Your task to perform on an android device: Open the calendar and show me this week's events Image 0: 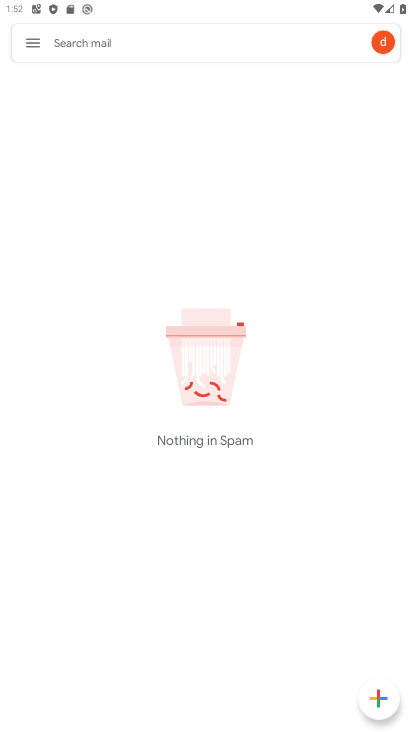
Step 0: press home button
Your task to perform on an android device: Open the calendar and show me this week's events Image 1: 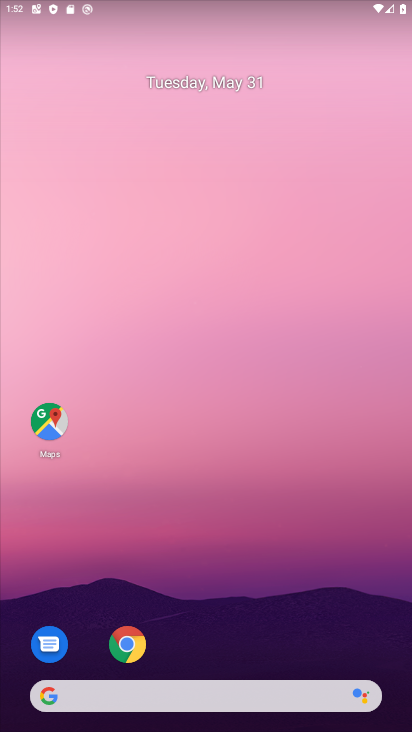
Step 1: click (123, 643)
Your task to perform on an android device: Open the calendar and show me this week's events Image 2: 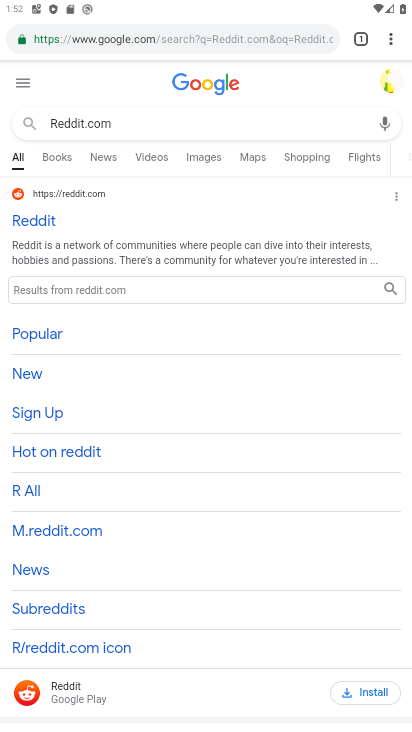
Step 2: press home button
Your task to perform on an android device: Open the calendar and show me this week's events Image 3: 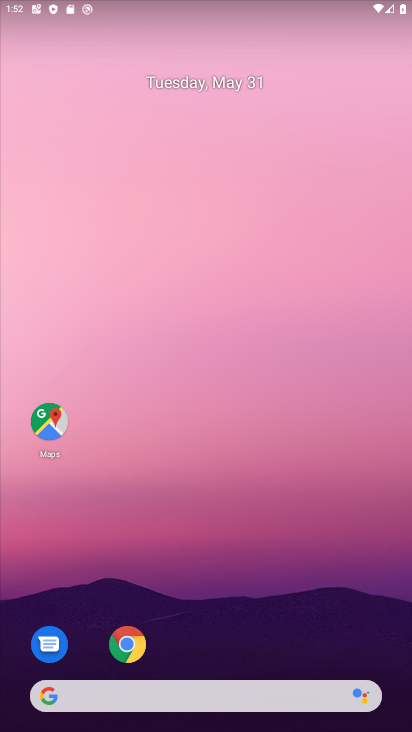
Step 3: drag from (386, 686) to (325, 157)
Your task to perform on an android device: Open the calendar and show me this week's events Image 4: 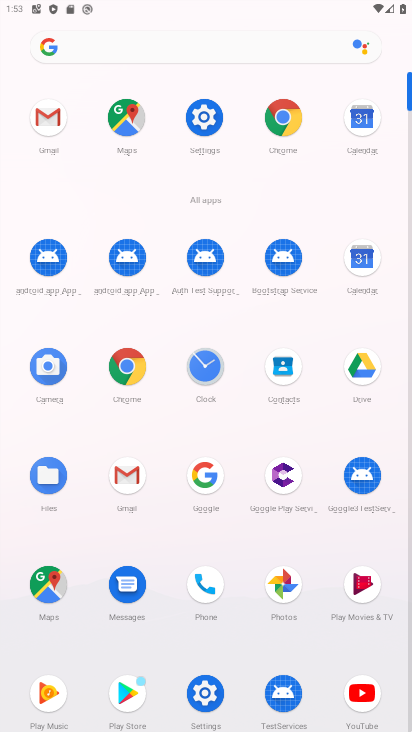
Step 4: click (359, 269)
Your task to perform on an android device: Open the calendar and show me this week's events Image 5: 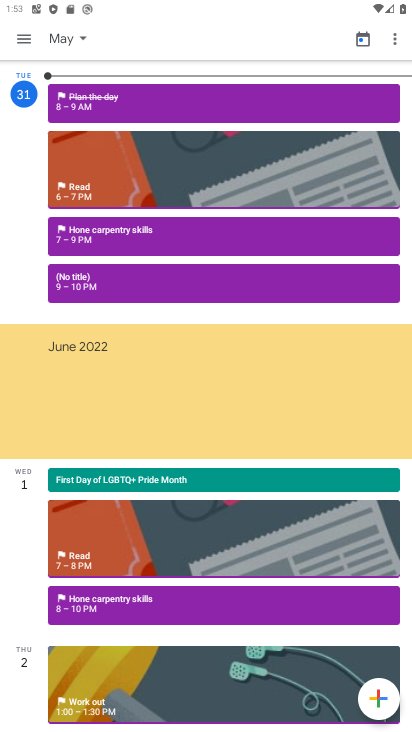
Step 5: click (395, 32)
Your task to perform on an android device: Open the calendar and show me this week's events Image 6: 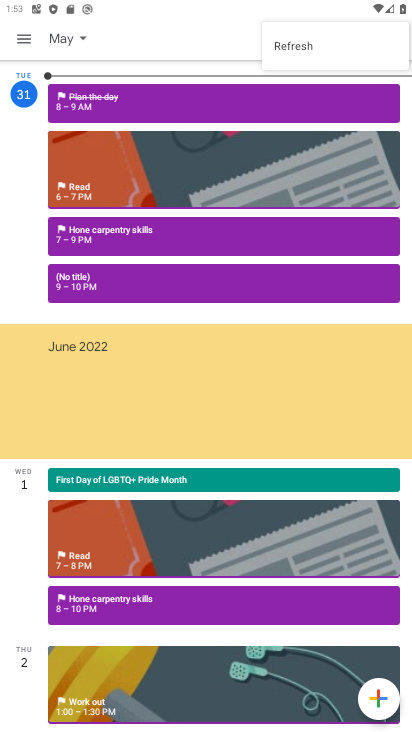
Step 6: click (129, 41)
Your task to perform on an android device: Open the calendar and show me this week's events Image 7: 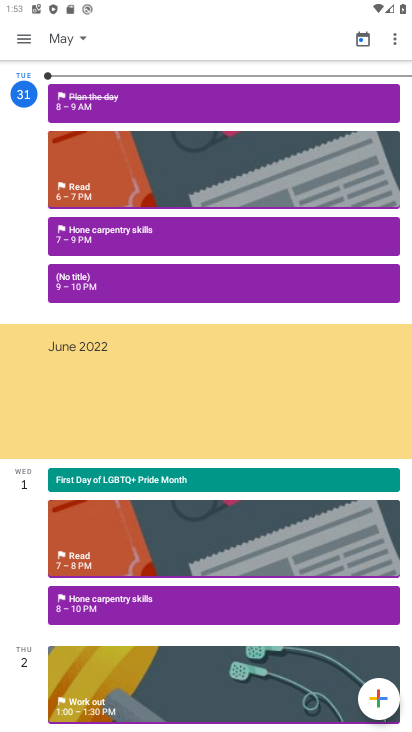
Step 7: click (79, 36)
Your task to perform on an android device: Open the calendar and show me this week's events Image 8: 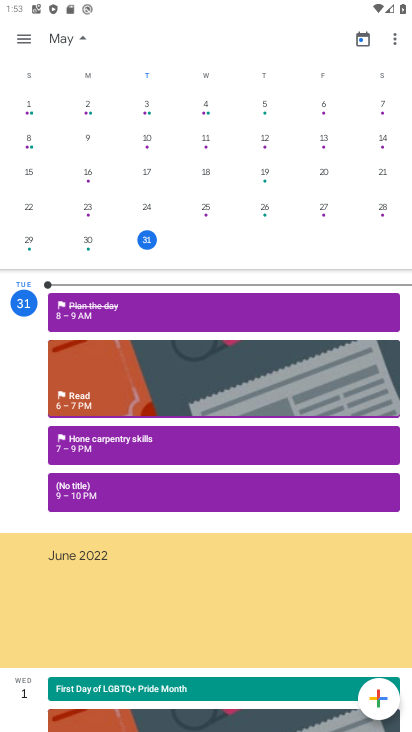
Step 8: click (143, 238)
Your task to perform on an android device: Open the calendar and show me this week's events Image 9: 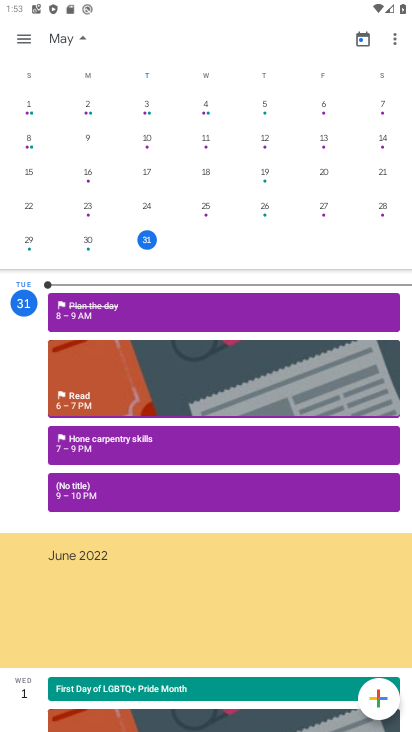
Step 9: click (20, 34)
Your task to perform on an android device: Open the calendar and show me this week's events Image 10: 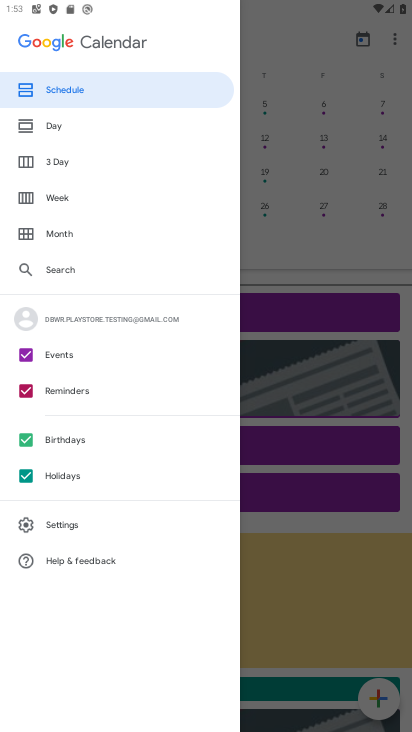
Step 10: click (49, 199)
Your task to perform on an android device: Open the calendar and show me this week's events Image 11: 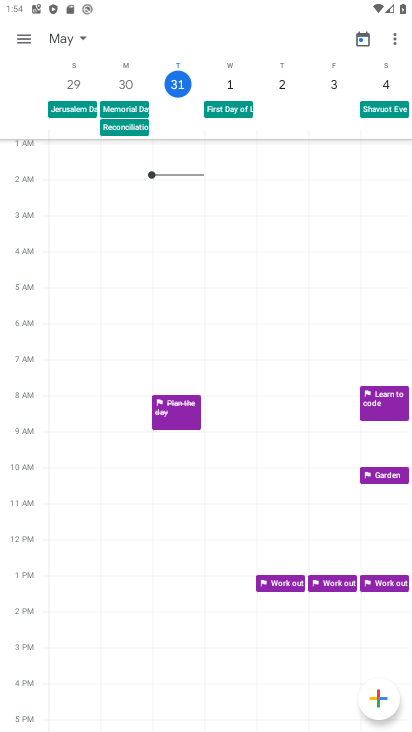
Step 11: click (21, 37)
Your task to perform on an android device: Open the calendar and show me this week's events Image 12: 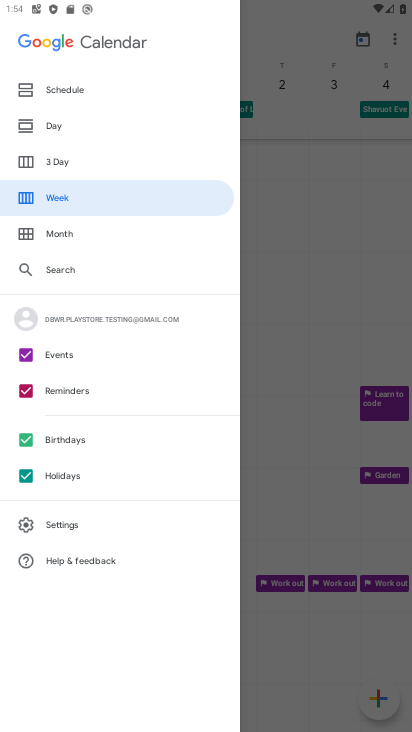
Step 12: click (59, 89)
Your task to perform on an android device: Open the calendar and show me this week's events Image 13: 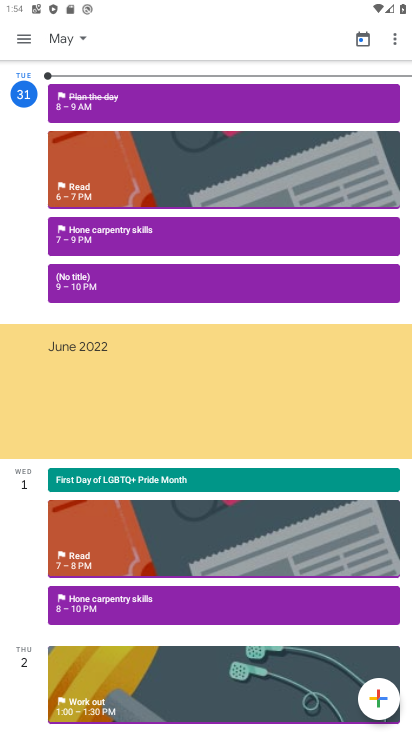
Step 13: task complete